Your task to perform on an android device: choose inbox layout in the gmail app Image 0: 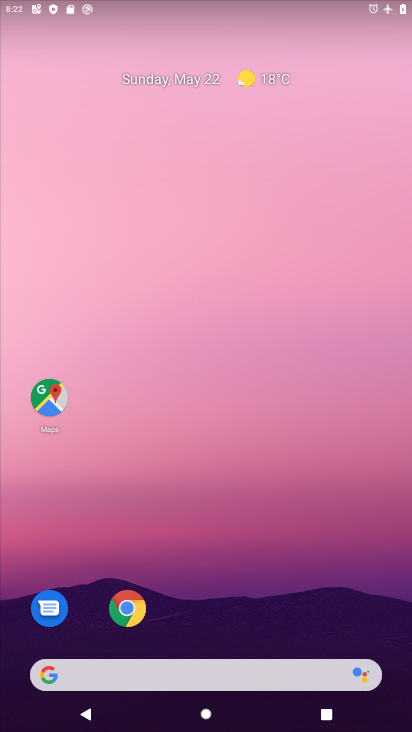
Step 0: drag from (233, 726) to (233, 174)
Your task to perform on an android device: choose inbox layout in the gmail app Image 1: 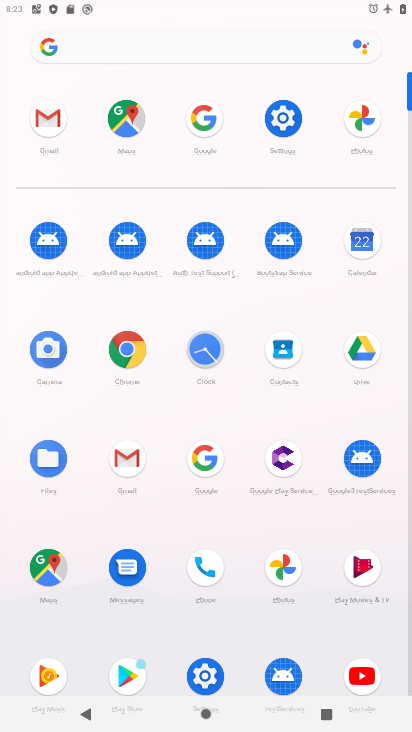
Step 1: click (128, 460)
Your task to perform on an android device: choose inbox layout in the gmail app Image 2: 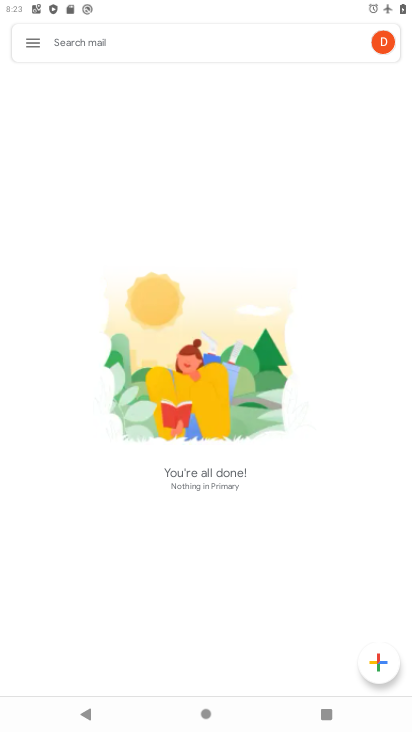
Step 2: click (32, 37)
Your task to perform on an android device: choose inbox layout in the gmail app Image 3: 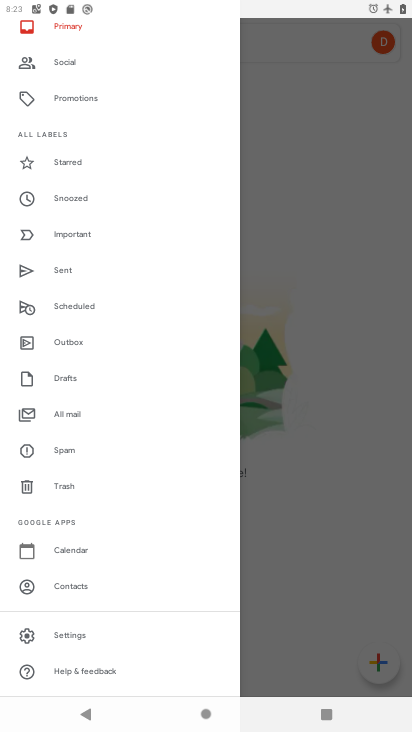
Step 3: click (75, 636)
Your task to perform on an android device: choose inbox layout in the gmail app Image 4: 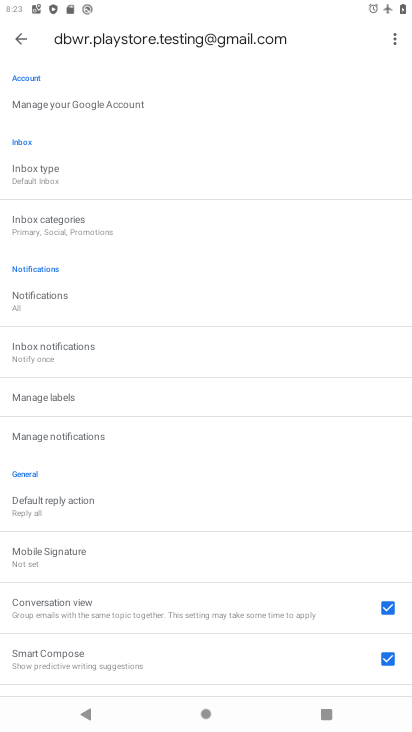
Step 4: click (45, 178)
Your task to perform on an android device: choose inbox layout in the gmail app Image 5: 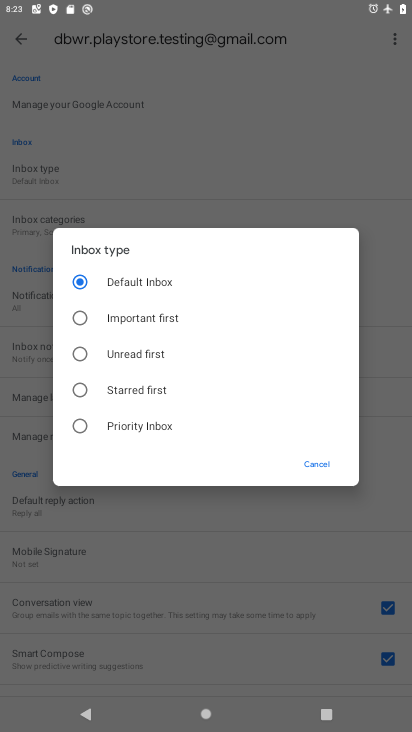
Step 5: click (79, 316)
Your task to perform on an android device: choose inbox layout in the gmail app Image 6: 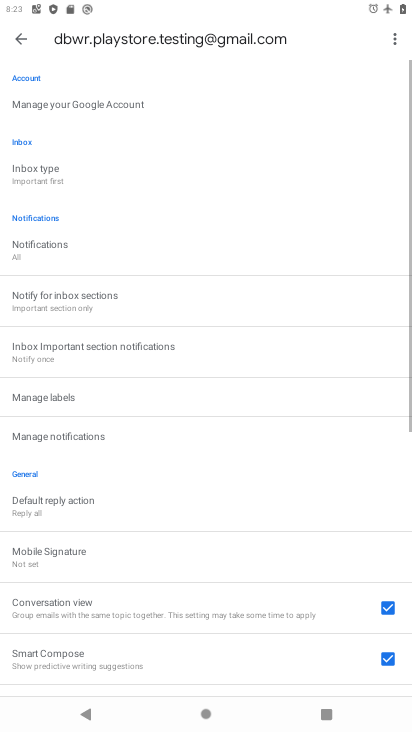
Step 6: task complete